Your task to perform on an android device: Open my contact list Image 0: 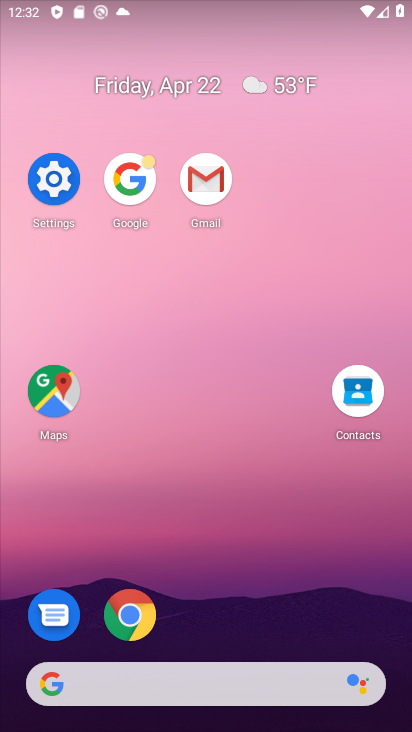
Step 0: click (364, 390)
Your task to perform on an android device: Open my contact list Image 1: 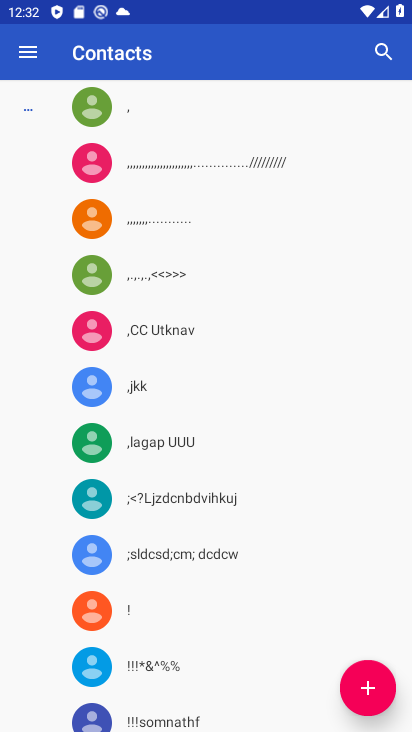
Step 1: task complete